Your task to perform on an android device: search for starred emails in the gmail app Image 0: 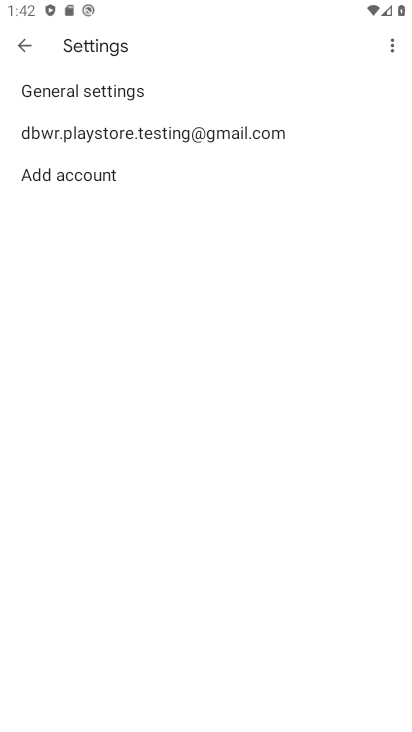
Step 0: press home button
Your task to perform on an android device: search for starred emails in the gmail app Image 1: 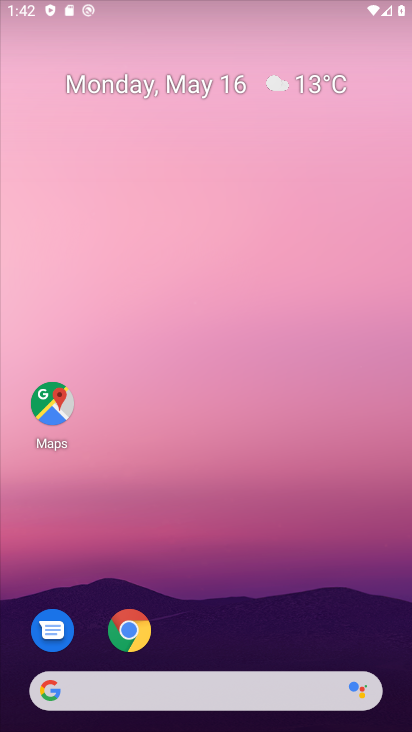
Step 1: drag from (325, 666) to (302, 232)
Your task to perform on an android device: search for starred emails in the gmail app Image 2: 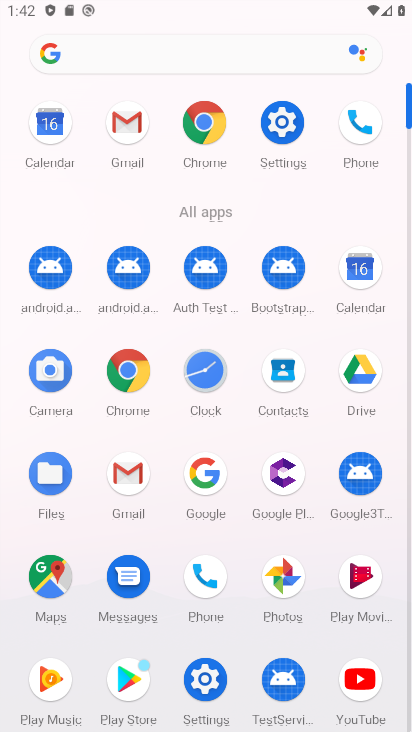
Step 2: click (200, 696)
Your task to perform on an android device: search for starred emails in the gmail app Image 3: 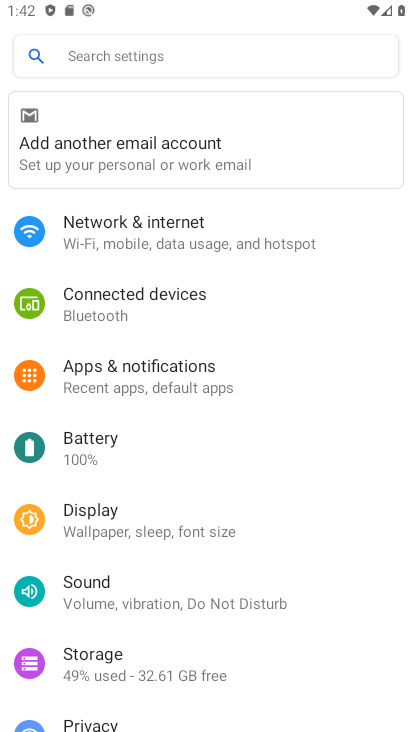
Step 3: press home button
Your task to perform on an android device: search for starred emails in the gmail app Image 4: 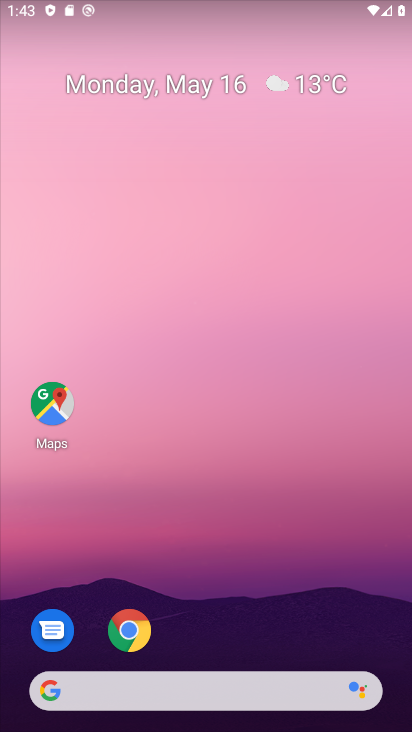
Step 4: drag from (401, 598) to (361, 186)
Your task to perform on an android device: search for starred emails in the gmail app Image 5: 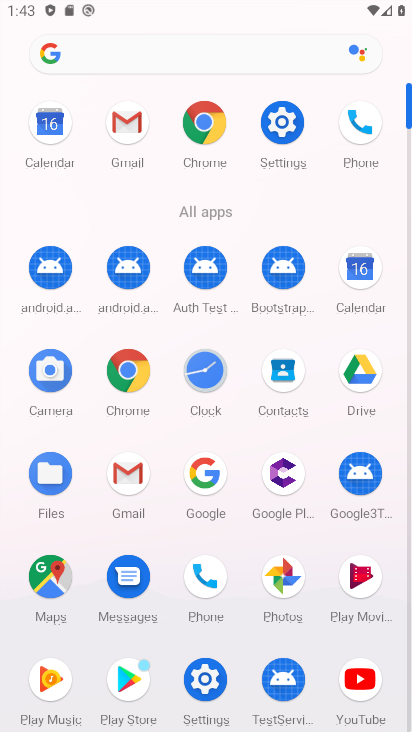
Step 5: click (124, 488)
Your task to perform on an android device: search for starred emails in the gmail app Image 6: 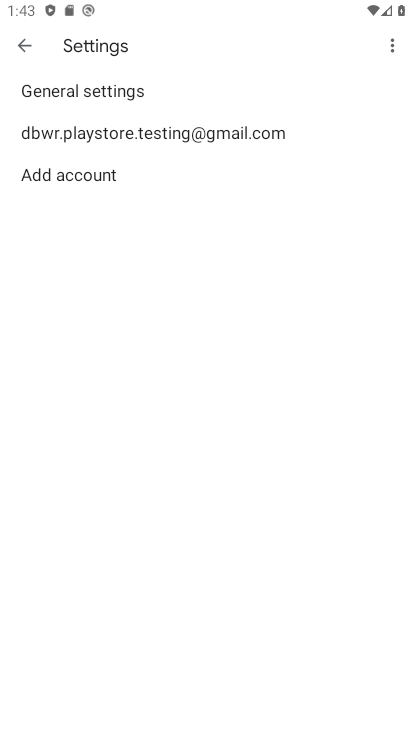
Step 6: click (203, 140)
Your task to perform on an android device: search for starred emails in the gmail app Image 7: 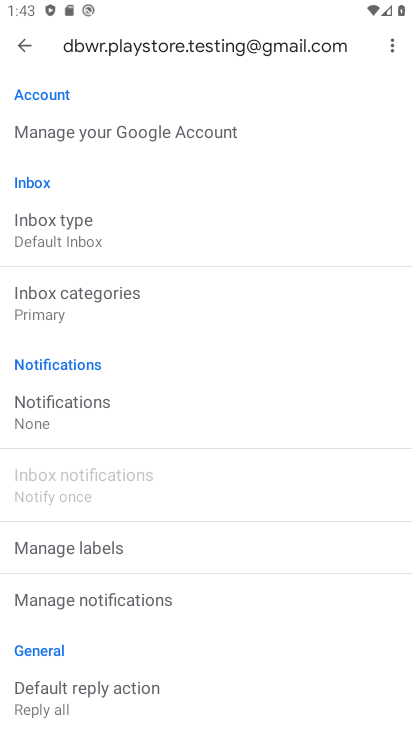
Step 7: drag from (144, 629) to (221, 317)
Your task to perform on an android device: search for starred emails in the gmail app Image 8: 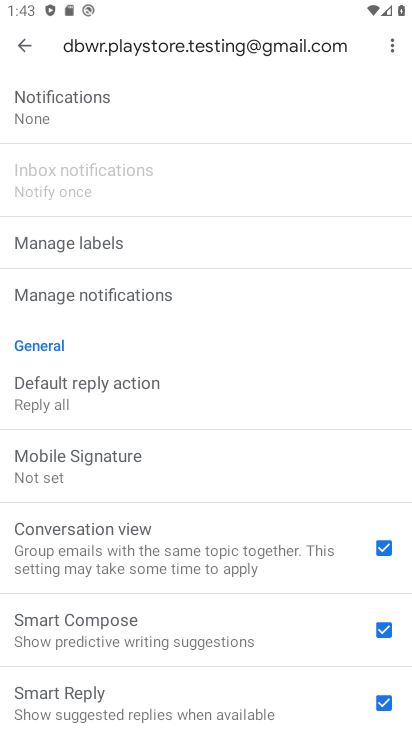
Step 8: drag from (162, 163) to (166, 452)
Your task to perform on an android device: search for starred emails in the gmail app Image 9: 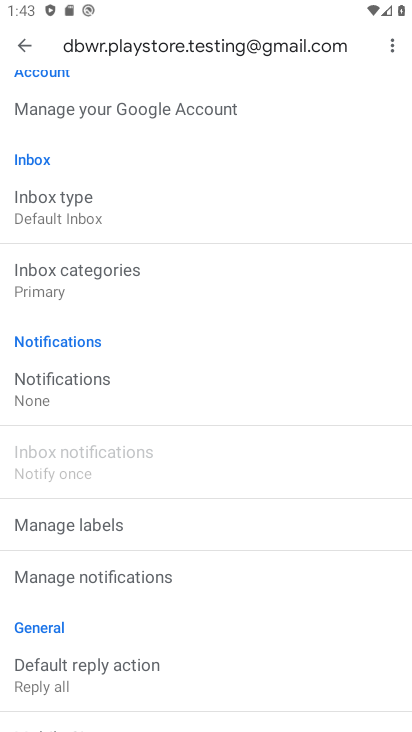
Step 9: drag from (214, 649) to (277, 250)
Your task to perform on an android device: search for starred emails in the gmail app Image 10: 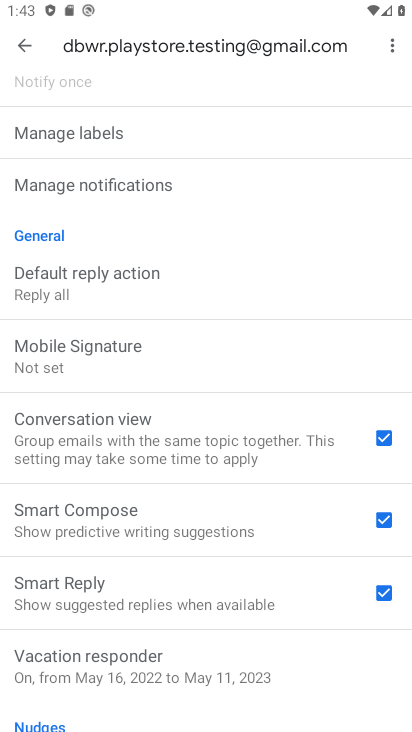
Step 10: click (29, 48)
Your task to perform on an android device: search for starred emails in the gmail app Image 11: 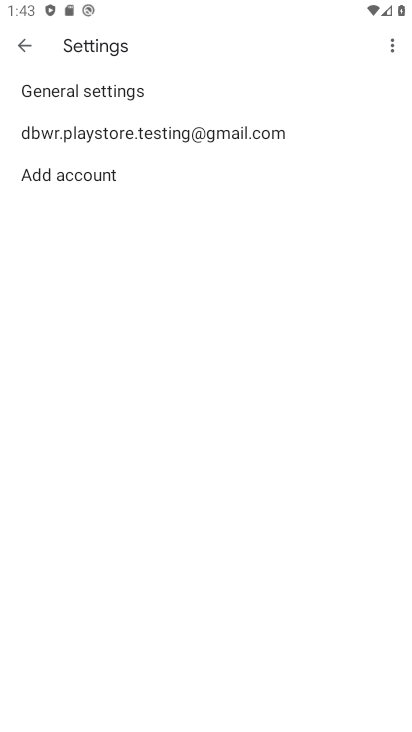
Step 11: click (29, 48)
Your task to perform on an android device: search for starred emails in the gmail app Image 12: 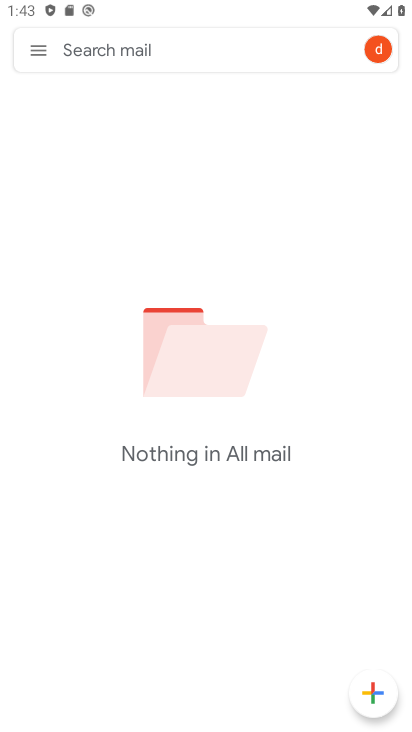
Step 12: click (19, 45)
Your task to perform on an android device: search for starred emails in the gmail app Image 13: 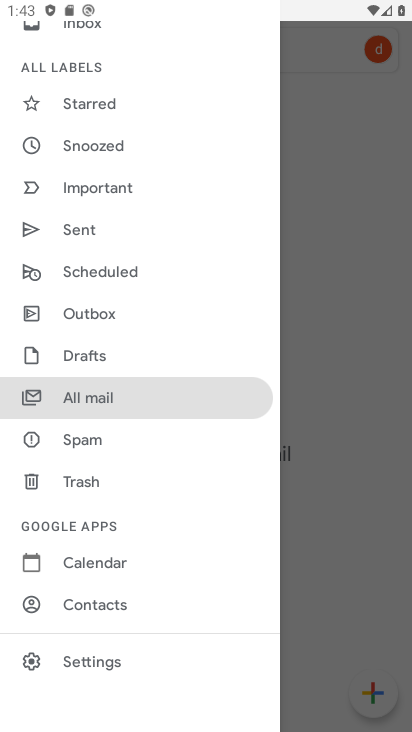
Step 13: drag from (181, 182) to (196, 466)
Your task to perform on an android device: search for starred emails in the gmail app Image 14: 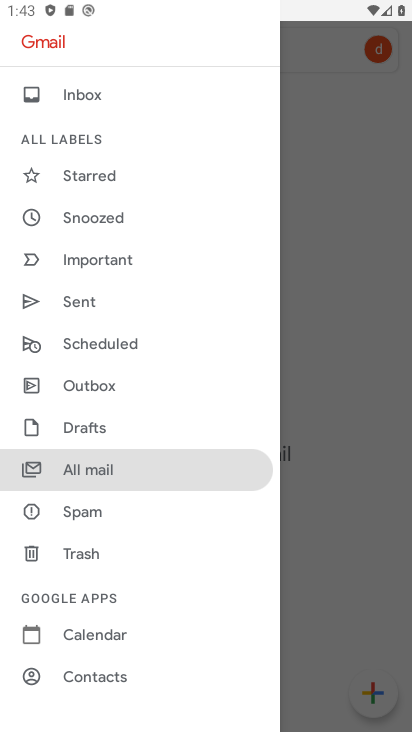
Step 14: click (112, 182)
Your task to perform on an android device: search for starred emails in the gmail app Image 15: 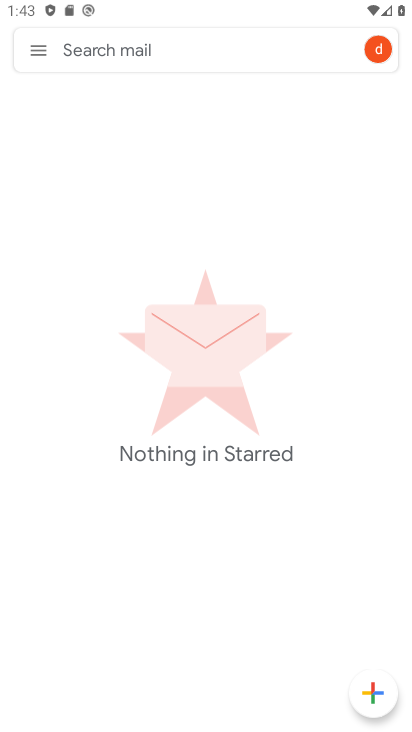
Step 15: task complete